Your task to perform on an android device: Show me the alarms in the clock app Image 0: 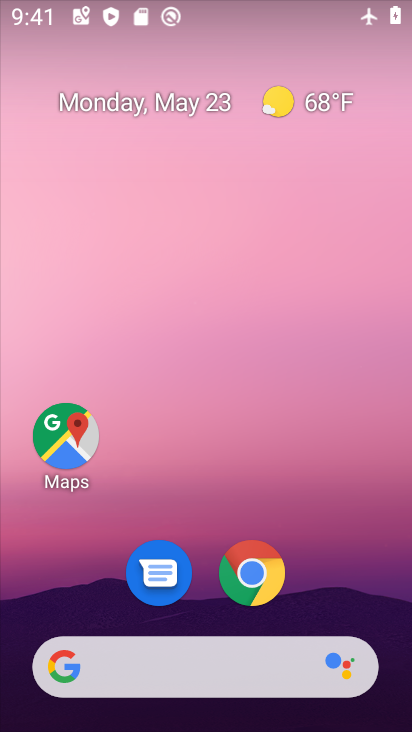
Step 0: click (268, 575)
Your task to perform on an android device: Show me the alarms in the clock app Image 1: 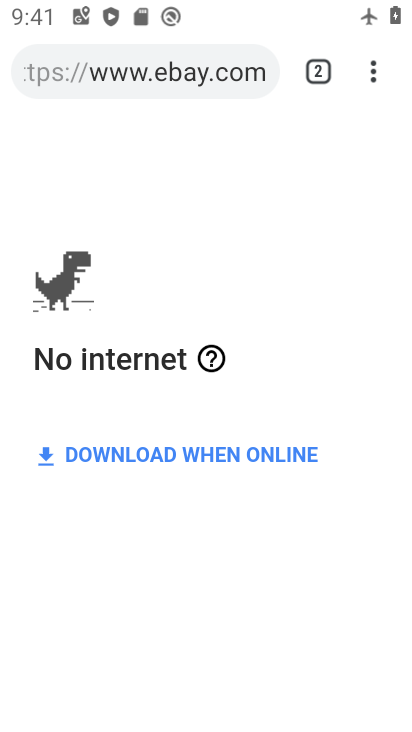
Step 1: click (374, 81)
Your task to perform on an android device: Show me the alarms in the clock app Image 2: 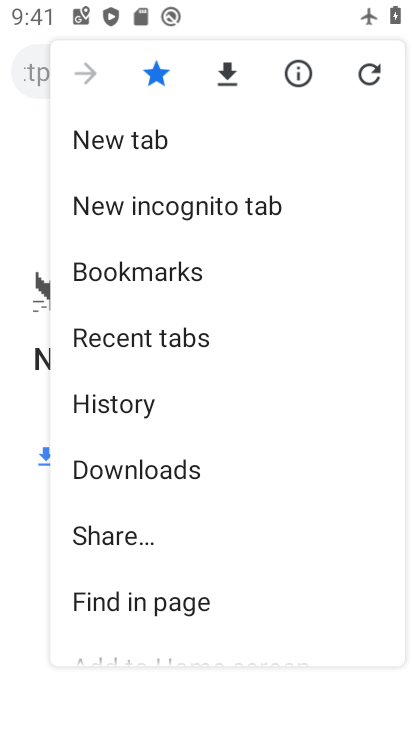
Step 2: press home button
Your task to perform on an android device: Show me the alarms in the clock app Image 3: 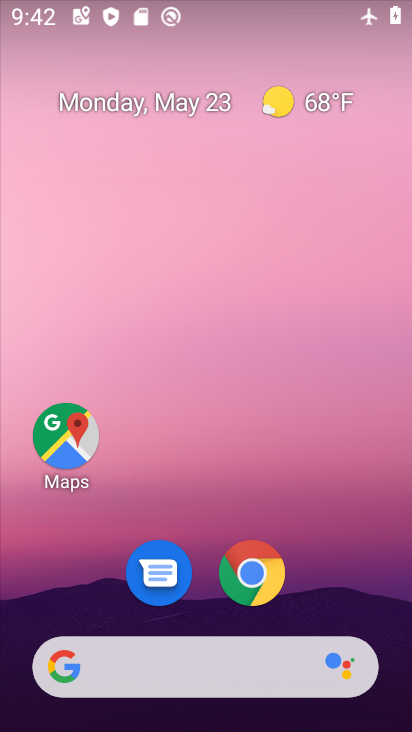
Step 3: drag from (346, 686) to (318, 46)
Your task to perform on an android device: Show me the alarms in the clock app Image 4: 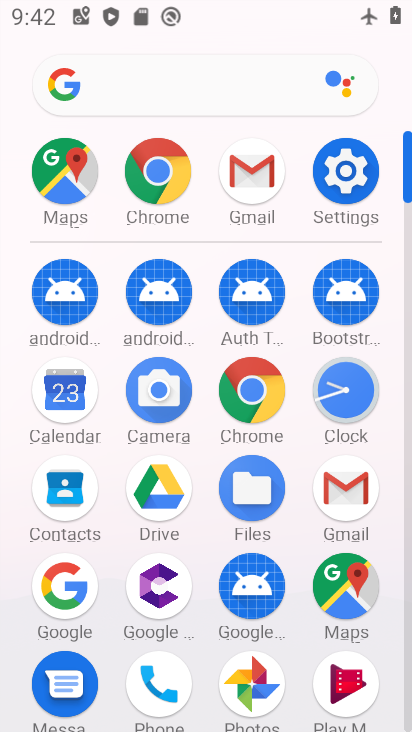
Step 4: click (364, 395)
Your task to perform on an android device: Show me the alarms in the clock app Image 5: 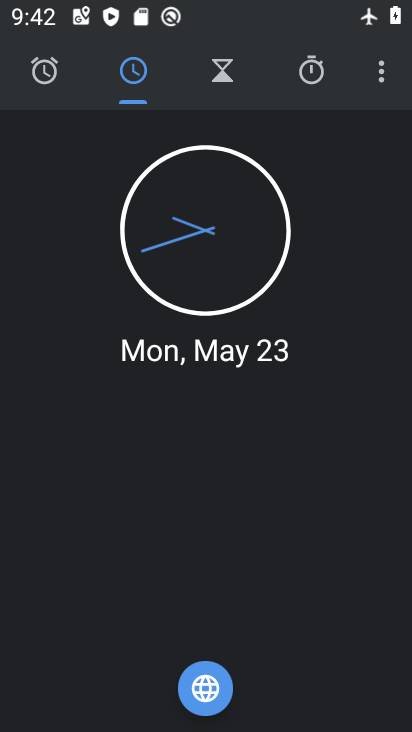
Step 5: click (44, 89)
Your task to perform on an android device: Show me the alarms in the clock app Image 6: 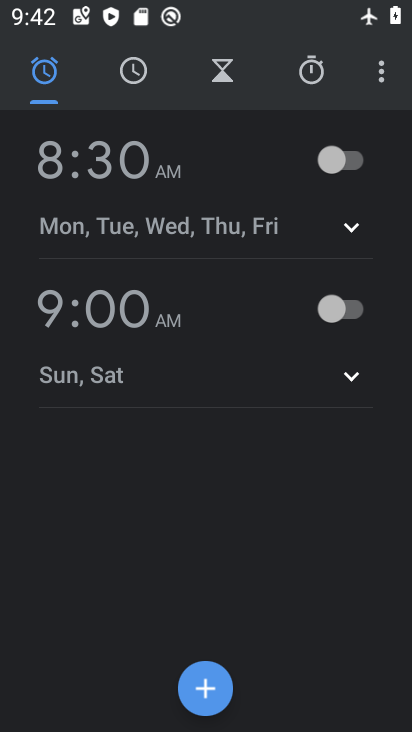
Step 6: task complete